Your task to perform on an android device: toggle data saver in the chrome app Image 0: 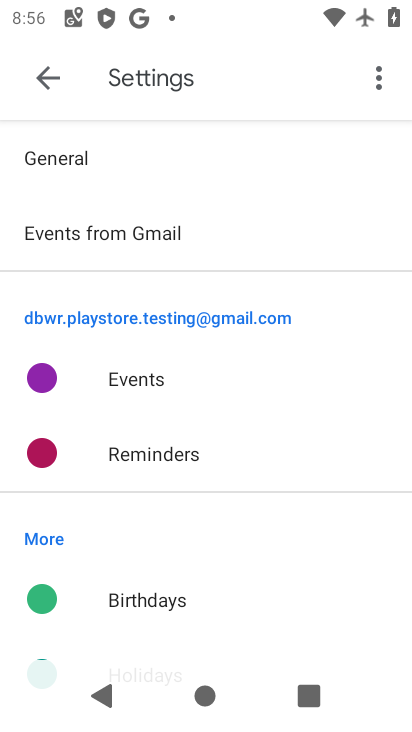
Step 0: press home button
Your task to perform on an android device: toggle data saver in the chrome app Image 1: 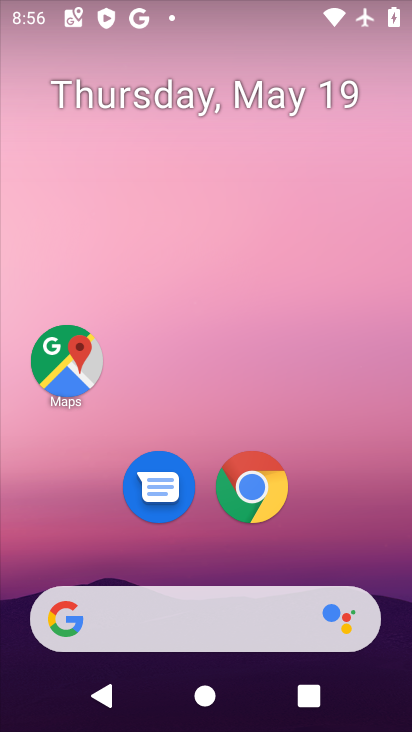
Step 1: click (273, 507)
Your task to perform on an android device: toggle data saver in the chrome app Image 2: 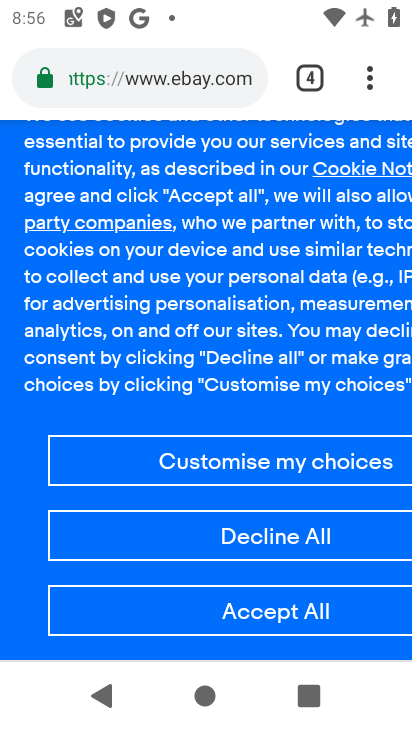
Step 2: click (366, 82)
Your task to perform on an android device: toggle data saver in the chrome app Image 3: 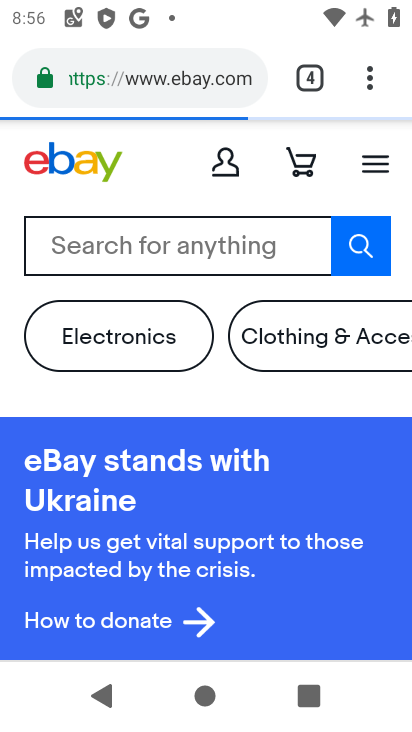
Step 3: drag from (366, 82) to (184, 542)
Your task to perform on an android device: toggle data saver in the chrome app Image 4: 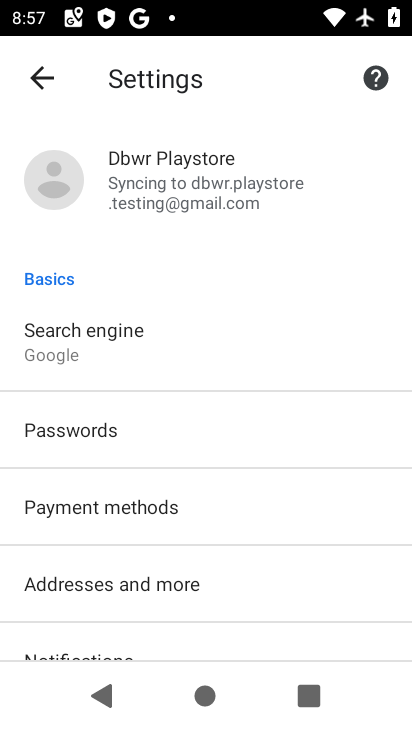
Step 4: drag from (178, 582) to (121, 22)
Your task to perform on an android device: toggle data saver in the chrome app Image 5: 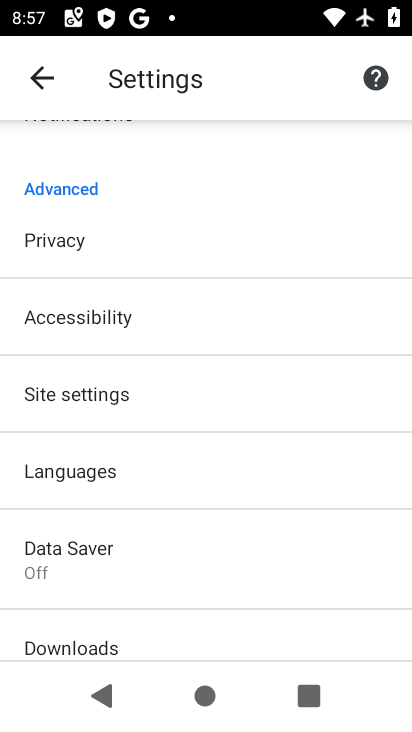
Step 5: click (86, 566)
Your task to perform on an android device: toggle data saver in the chrome app Image 6: 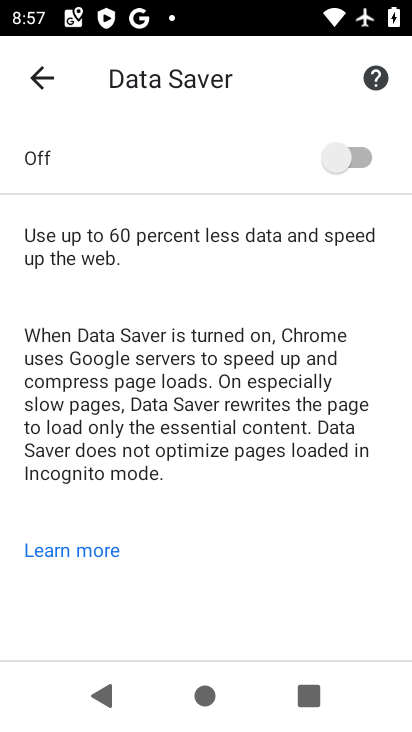
Step 6: click (355, 138)
Your task to perform on an android device: toggle data saver in the chrome app Image 7: 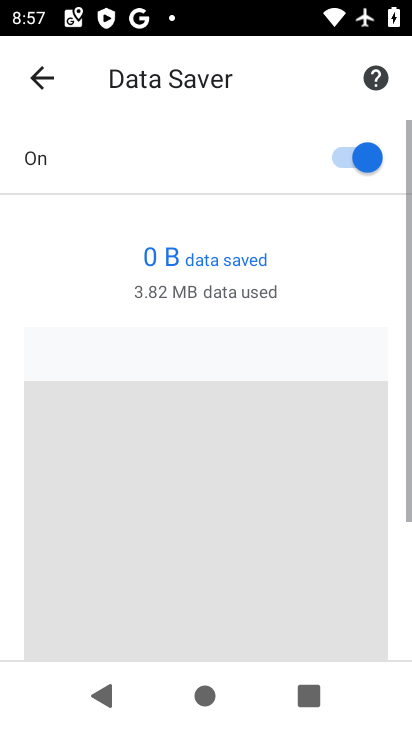
Step 7: task complete